Your task to perform on an android device: empty trash in google photos Image 0: 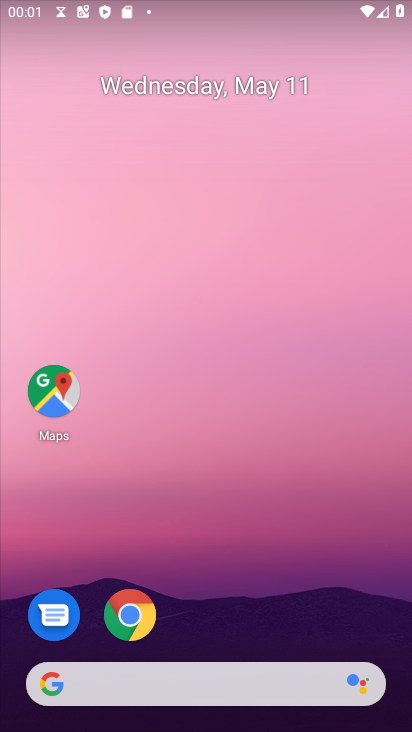
Step 0: drag from (281, 600) to (312, 177)
Your task to perform on an android device: empty trash in google photos Image 1: 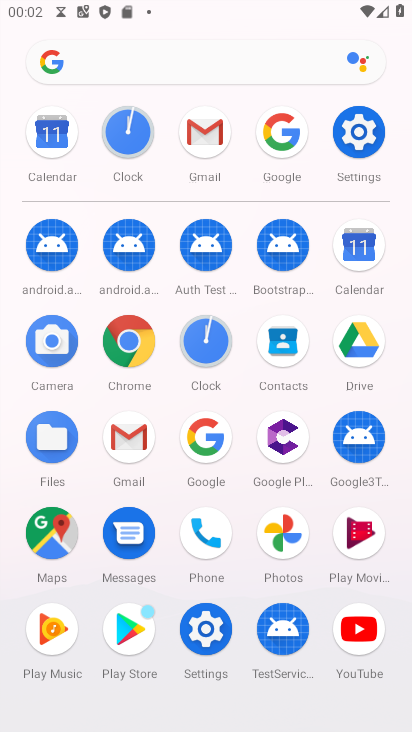
Step 1: click (283, 538)
Your task to perform on an android device: empty trash in google photos Image 2: 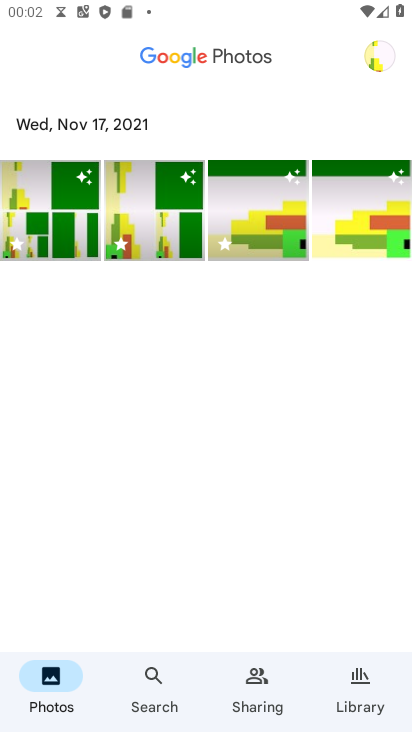
Step 2: click (361, 676)
Your task to perform on an android device: empty trash in google photos Image 3: 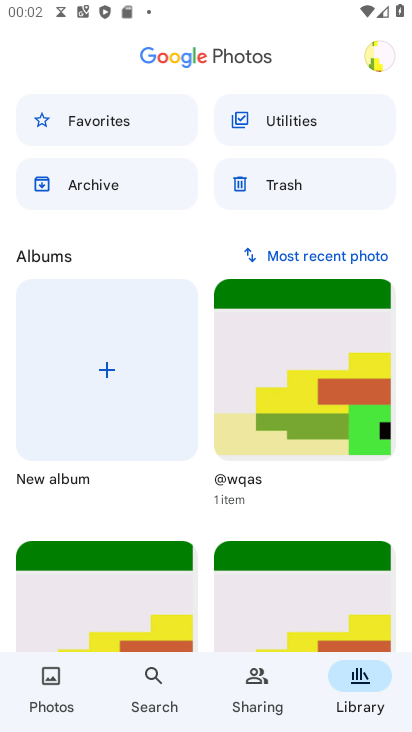
Step 3: click (301, 186)
Your task to perform on an android device: empty trash in google photos Image 4: 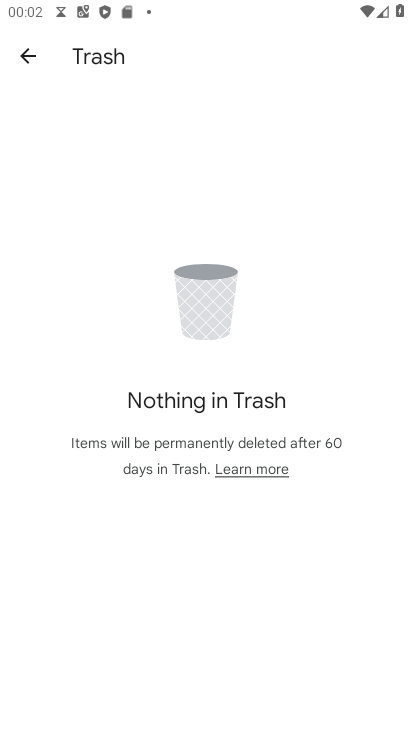
Step 4: task complete